Your task to perform on an android device: Check the news Image 0: 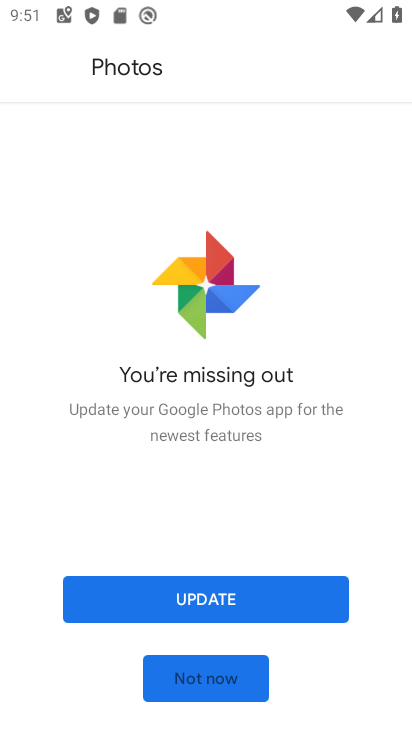
Step 0: press home button
Your task to perform on an android device: Check the news Image 1: 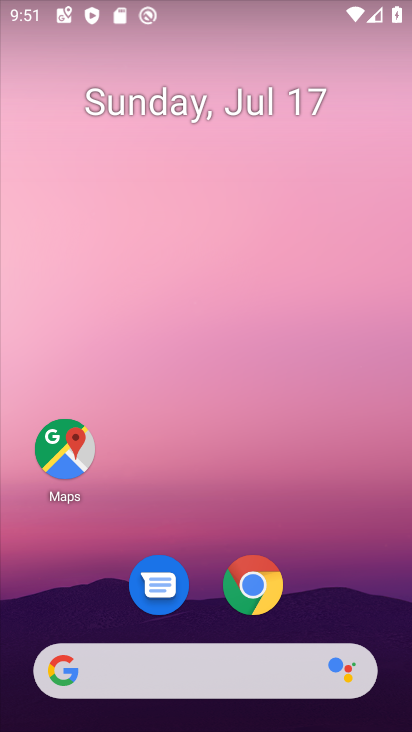
Step 1: click (237, 674)
Your task to perform on an android device: Check the news Image 2: 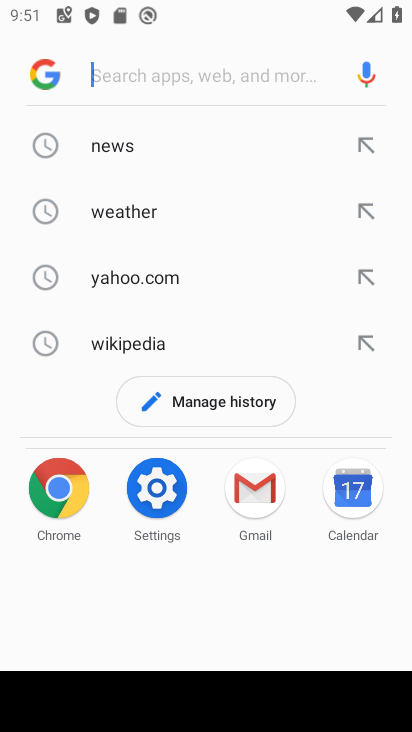
Step 2: click (108, 137)
Your task to perform on an android device: Check the news Image 3: 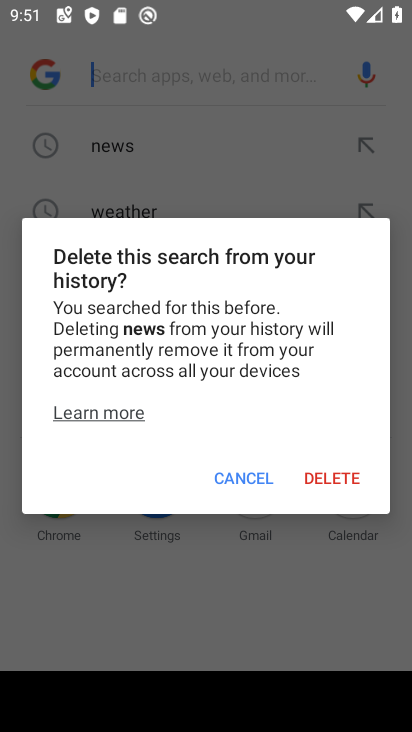
Step 3: click (257, 469)
Your task to perform on an android device: Check the news Image 4: 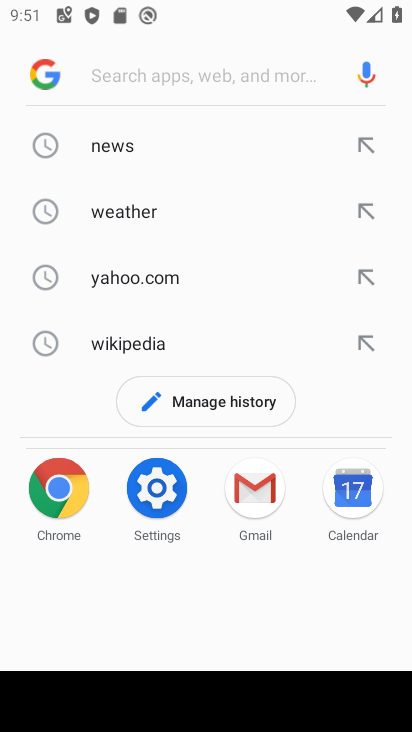
Step 4: click (121, 133)
Your task to perform on an android device: Check the news Image 5: 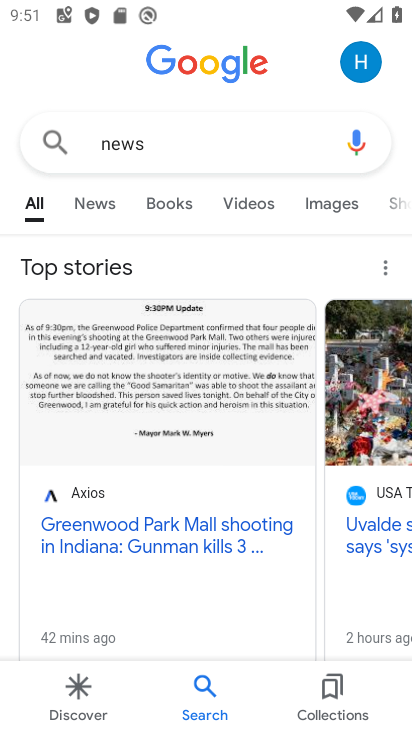
Step 5: click (113, 208)
Your task to perform on an android device: Check the news Image 6: 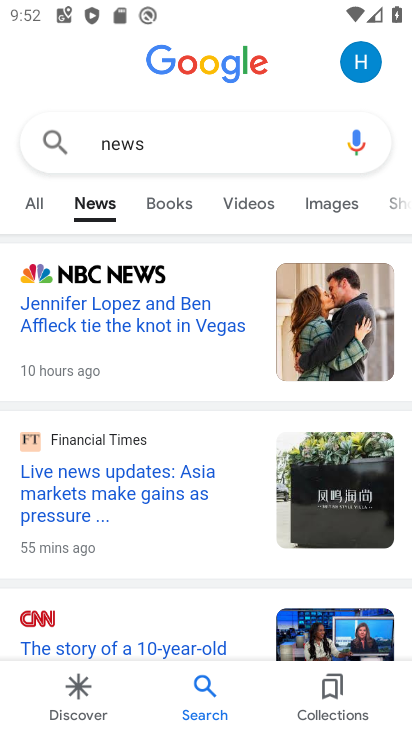
Step 6: task complete